Your task to perform on an android device: Open wifi settings Image 0: 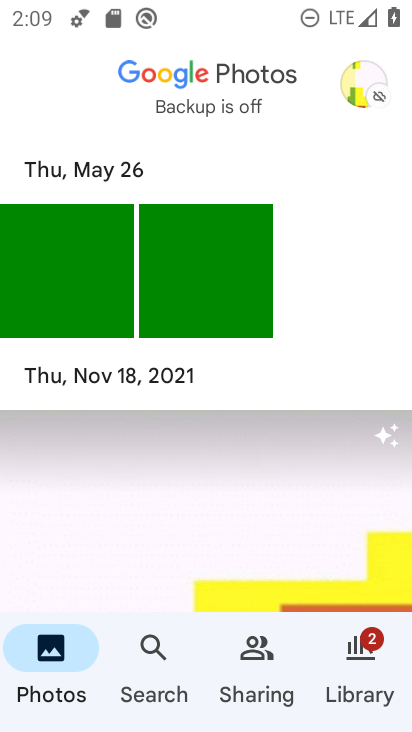
Step 0: press home button
Your task to perform on an android device: Open wifi settings Image 1: 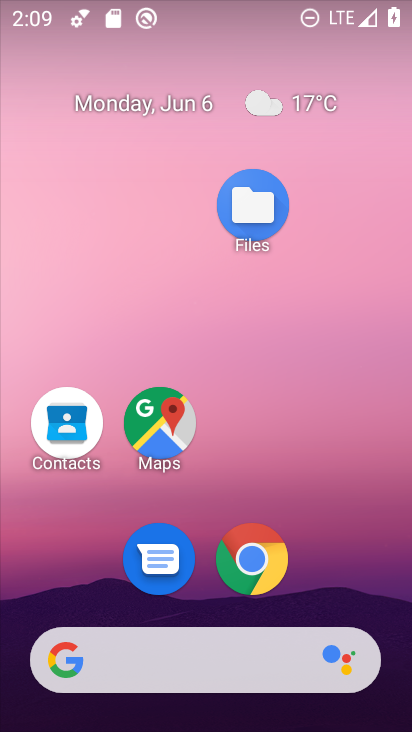
Step 1: drag from (196, 609) to (288, 117)
Your task to perform on an android device: Open wifi settings Image 2: 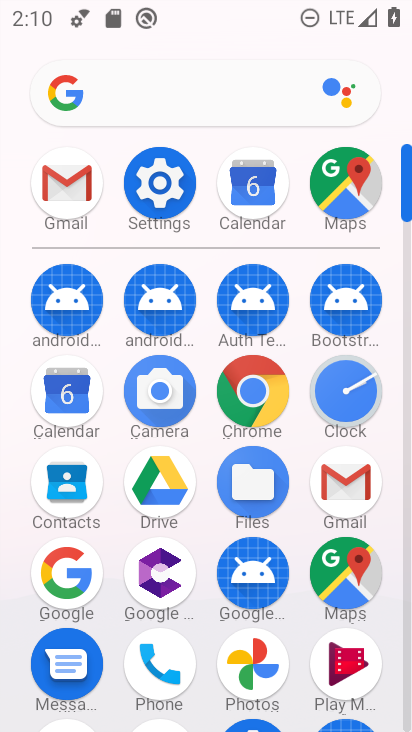
Step 2: click (164, 190)
Your task to perform on an android device: Open wifi settings Image 3: 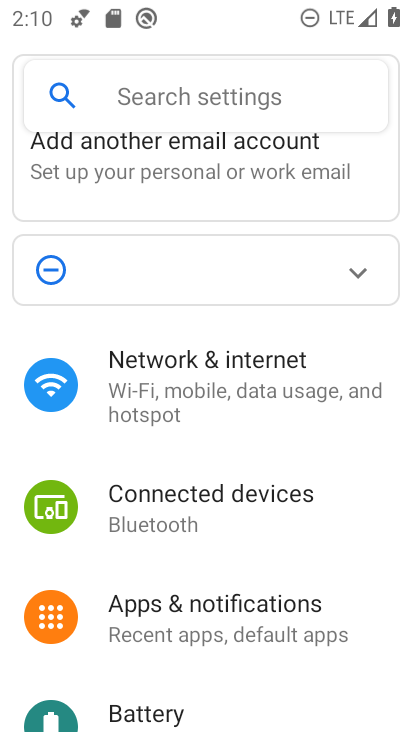
Step 3: click (299, 396)
Your task to perform on an android device: Open wifi settings Image 4: 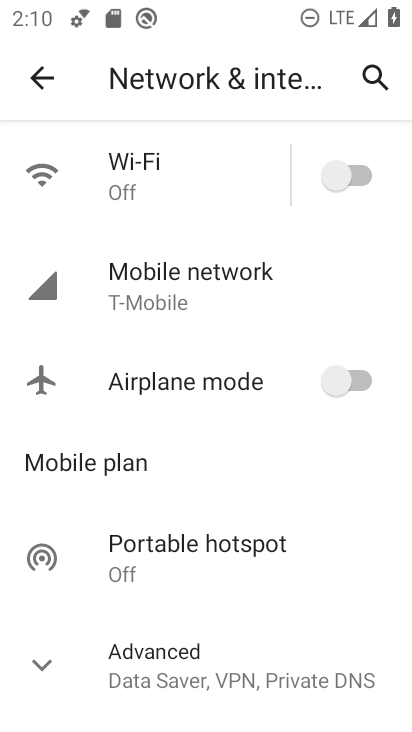
Step 4: click (209, 191)
Your task to perform on an android device: Open wifi settings Image 5: 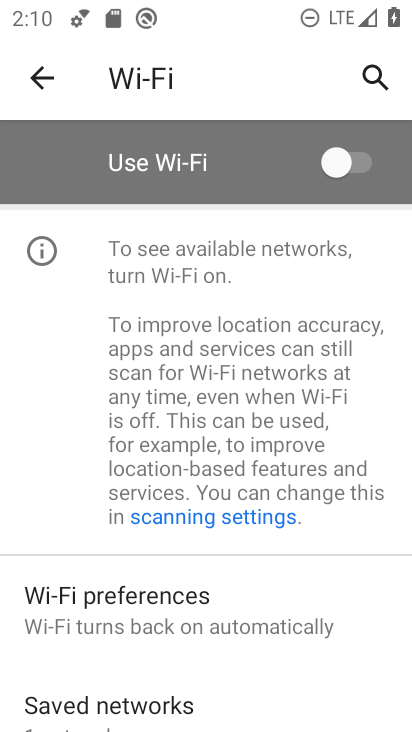
Step 5: task complete